Your task to perform on an android device: Show me productivity apps on the Play Store Image 0: 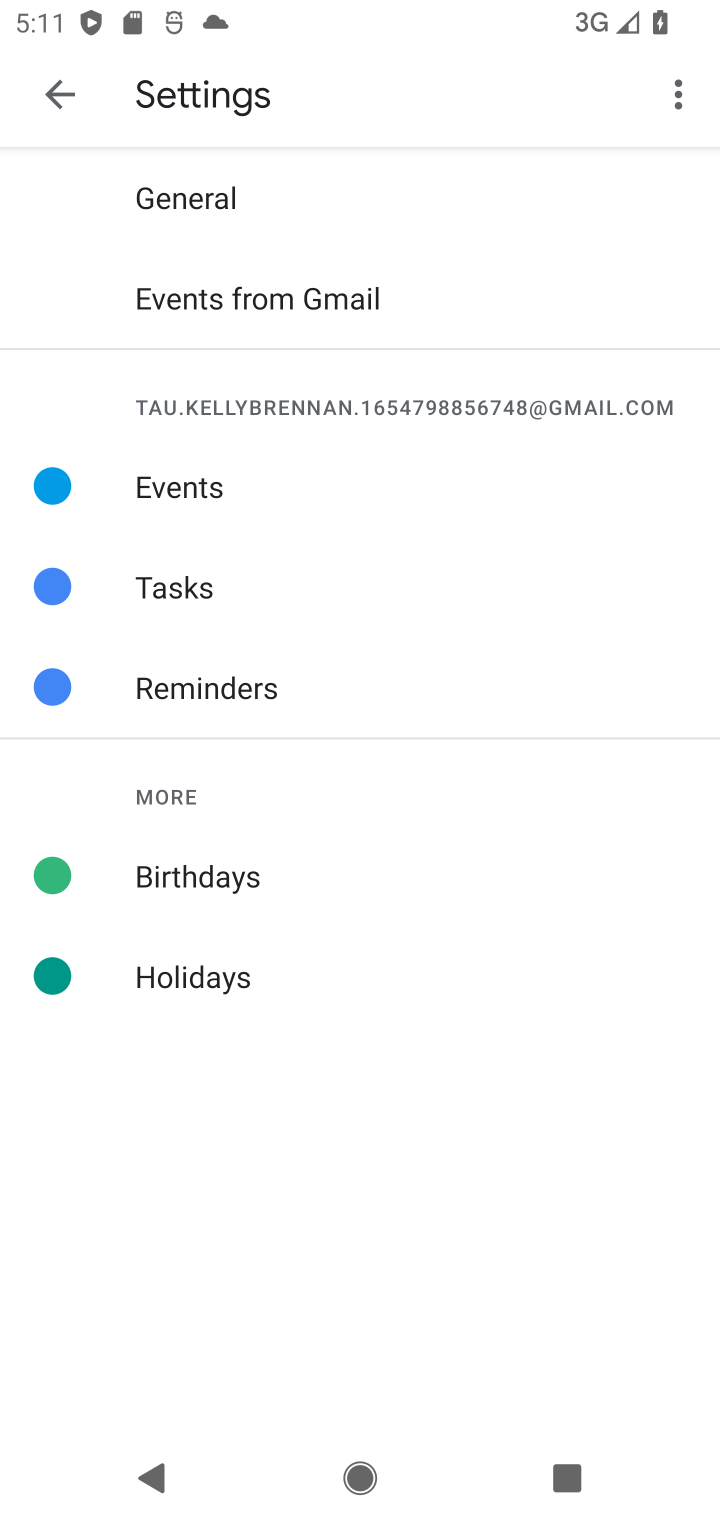
Step 0: press home button
Your task to perform on an android device: Show me productivity apps on the Play Store Image 1: 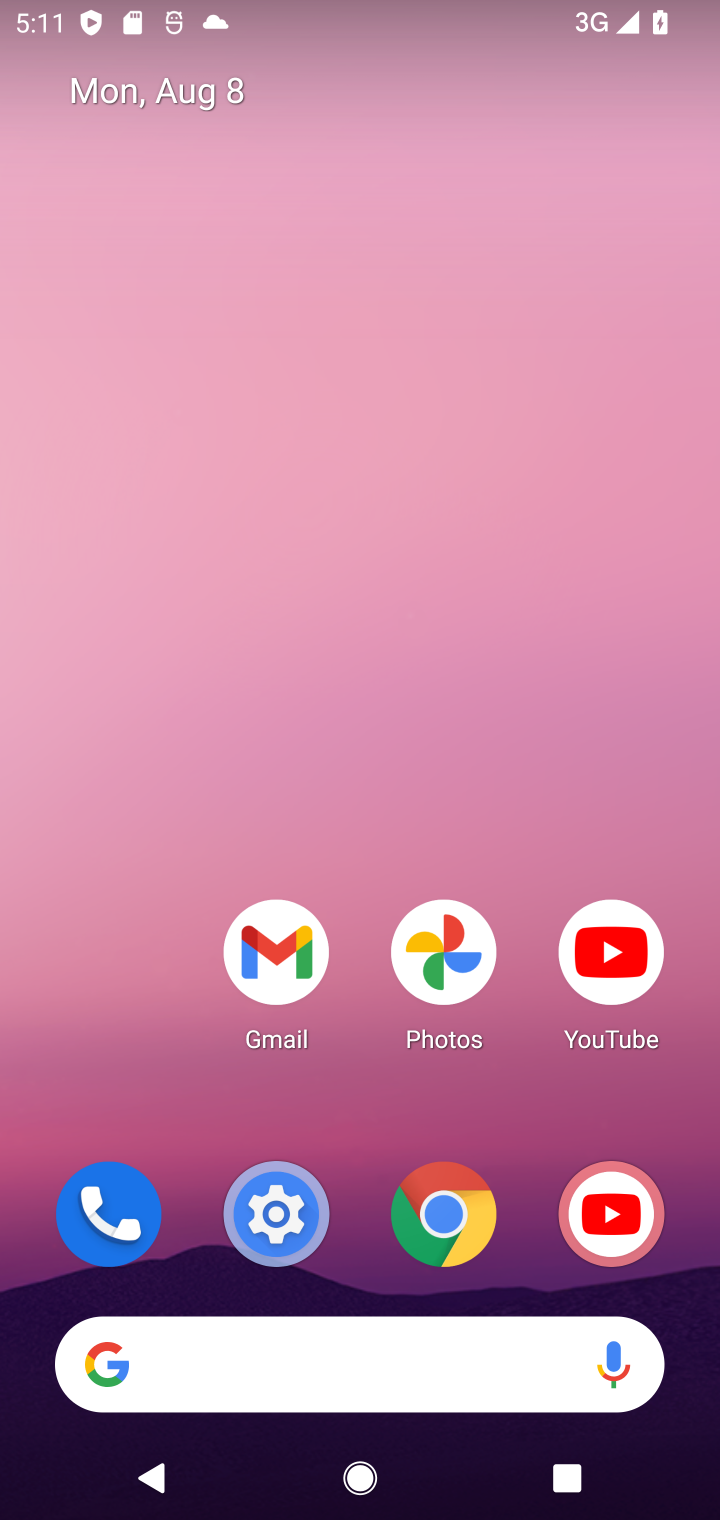
Step 1: drag from (355, 1152) to (372, 502)
Your task to perform on an android device: Show me productivity apps on the Play Store Image 2: 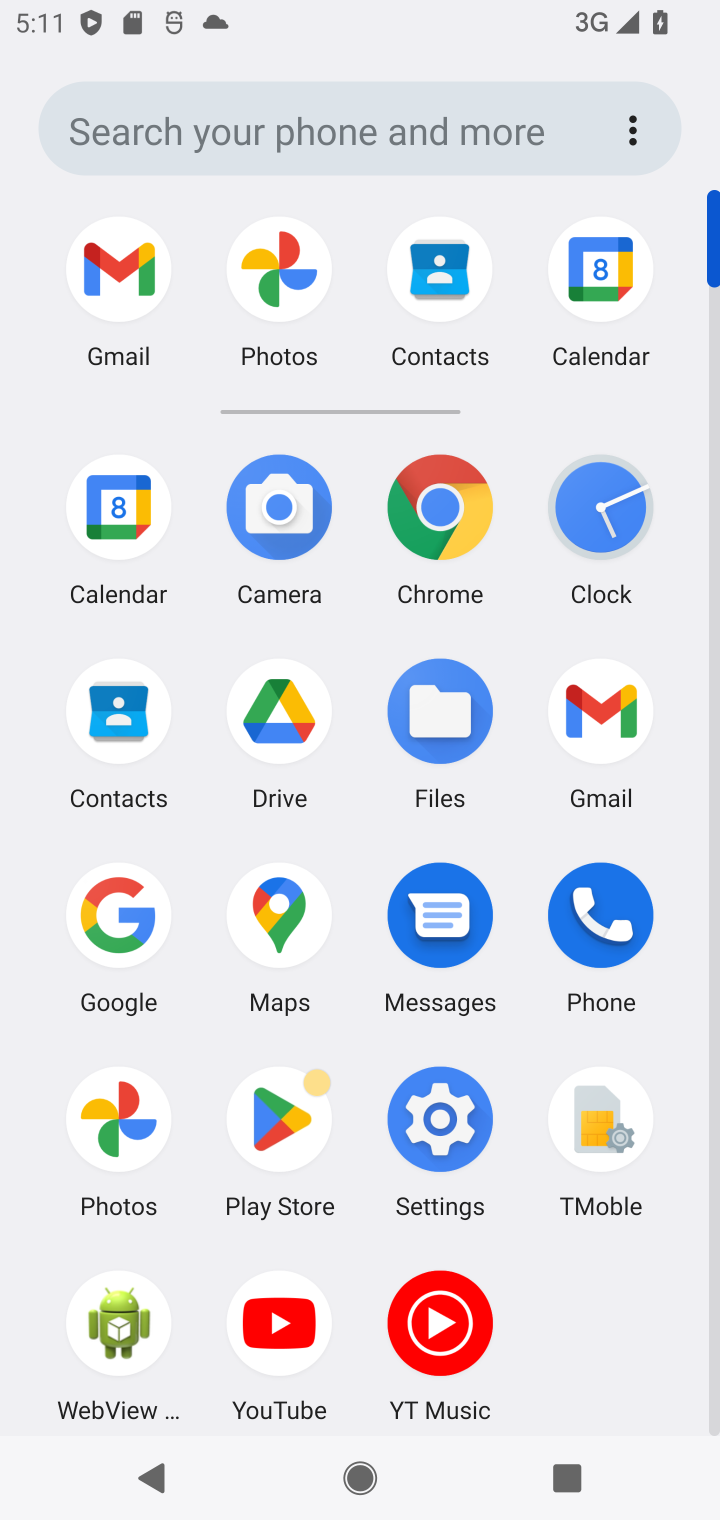
Step 2: click (280, 1119)
Your task to perform on an android device: Show me productivity apps on the Play Store Image 3: 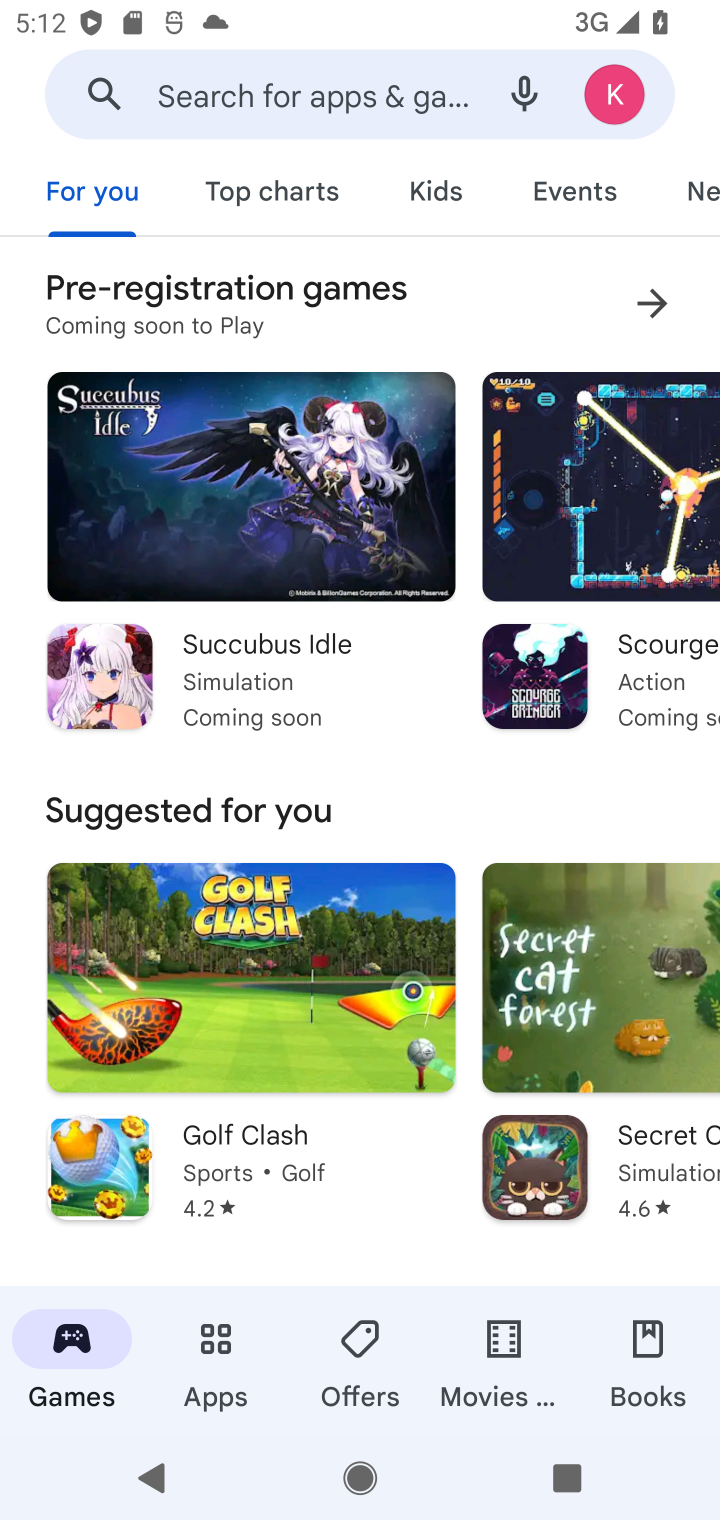
Step 3: click (207, 1340)
Your task to perform on an android device: Show me productivity apps on the Play Store Image 4: 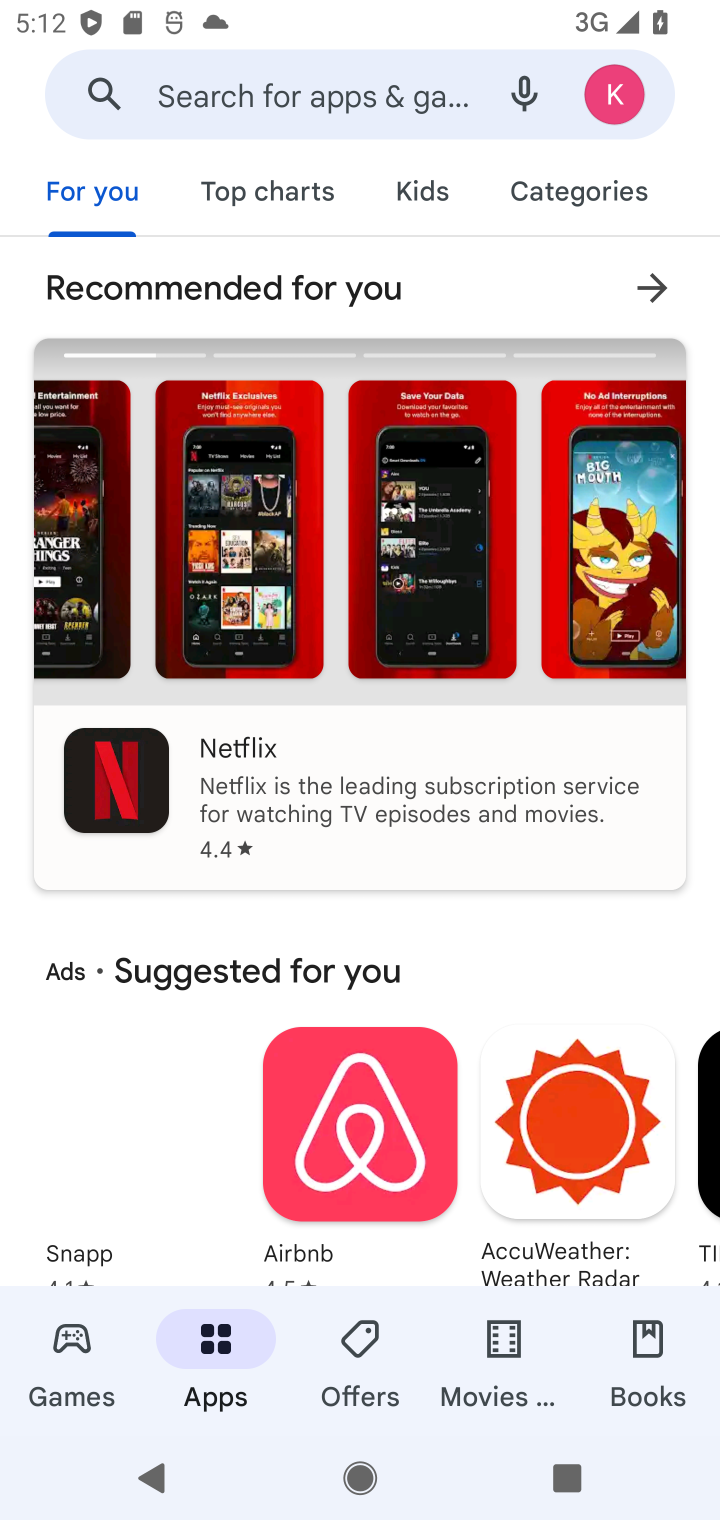
Step 4: click (576, 195)
Your task to perform on an android device: Show me productivity apps on the Play Store Image 5: 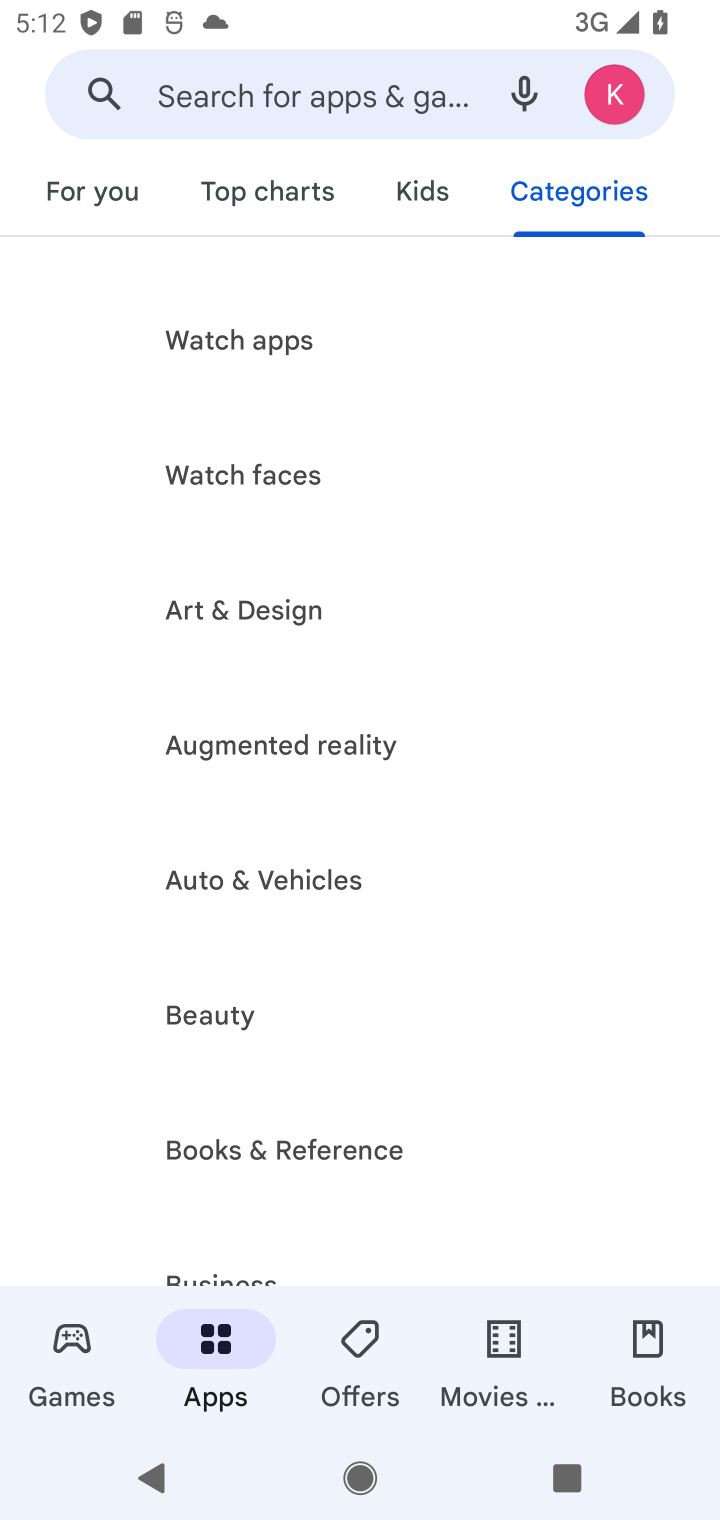
Step 5: drag from (281, 1205) to (281, 584)
Your task to perform on an android device: Show me productivity apps on the Play Store Image 6: 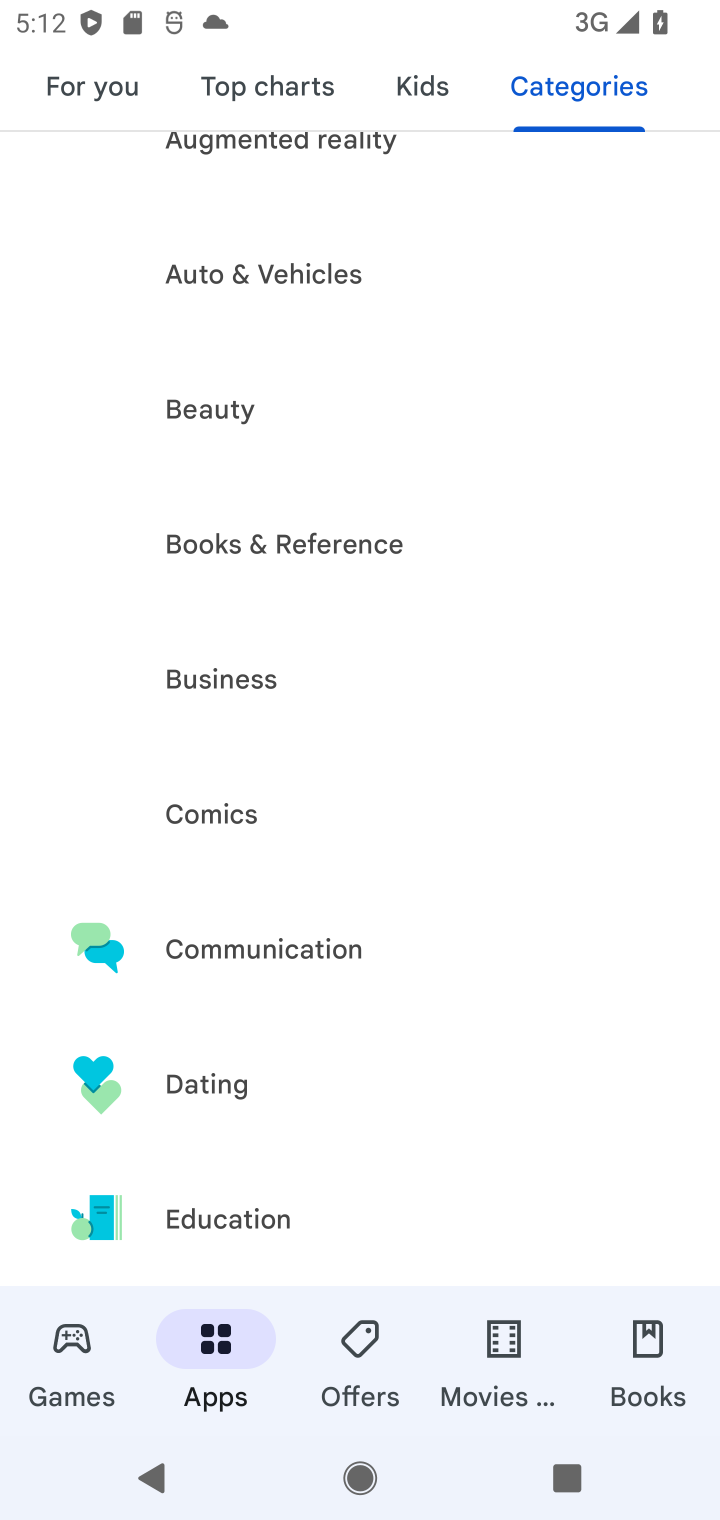
Step 6: drag from (259, 1242) to (273, 659)
Your task to perform on an android device: Show me productivity apps on the Play Store Image 7: 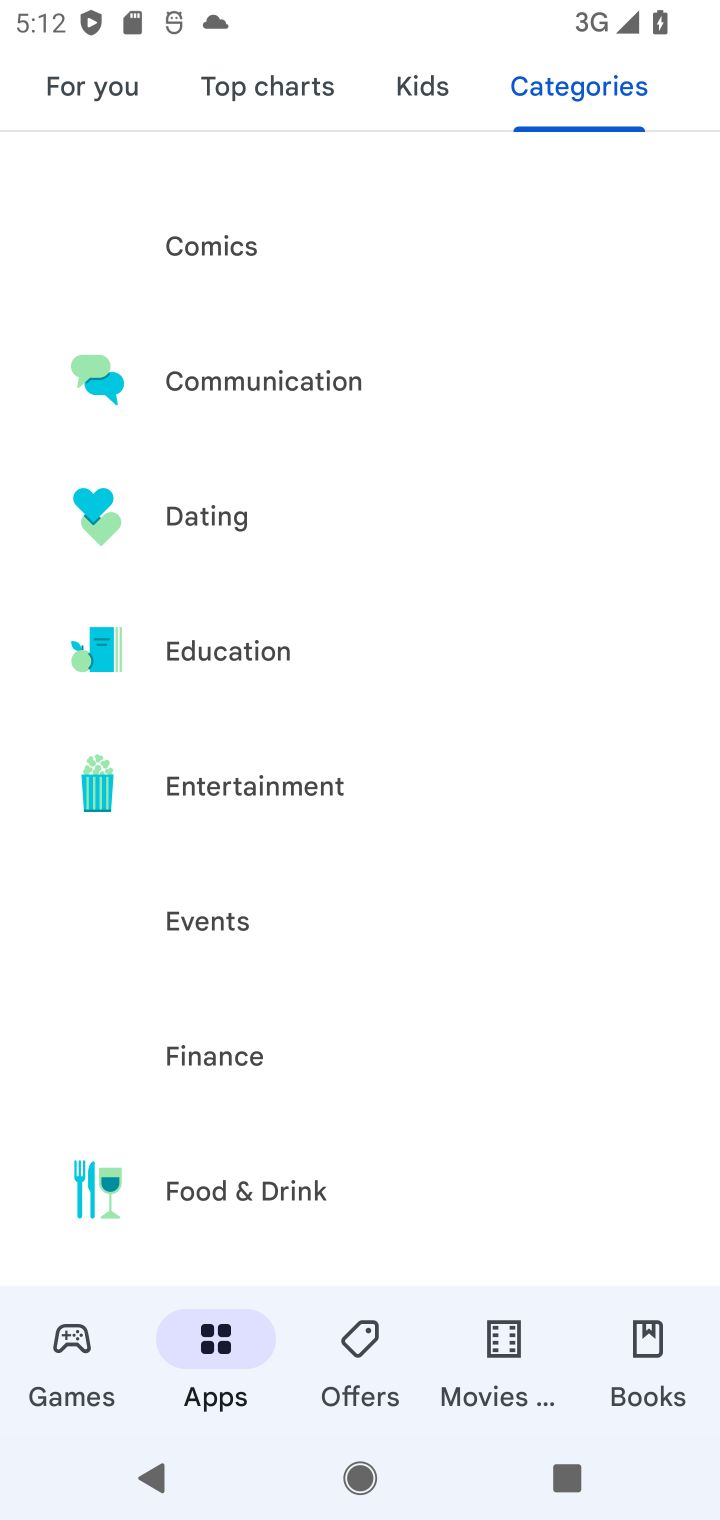
Step 7: drag from (304, 1219) to (311, 524)
Your task to perform on an android device: Show me productivity apps on the Play Store Image 8: 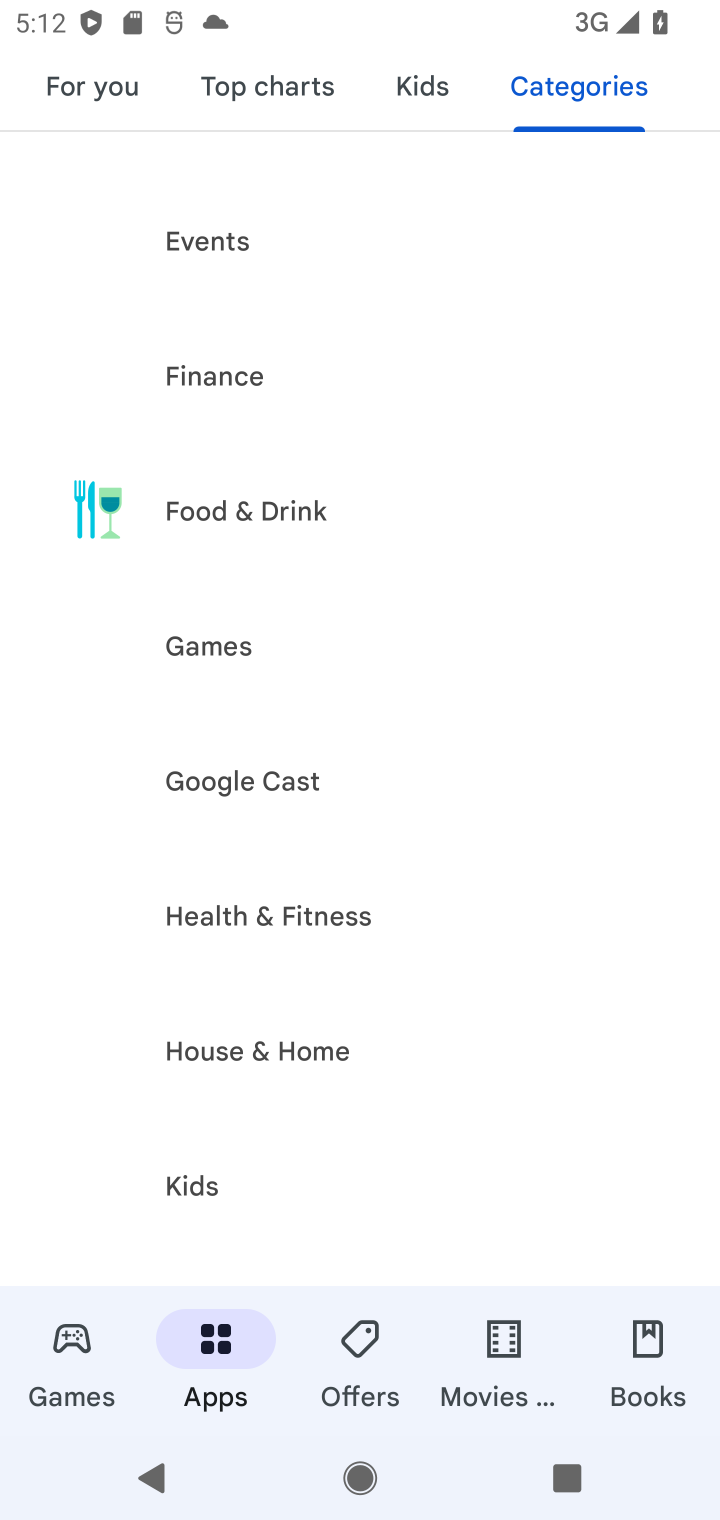
Step 8: drag from (316, 1185) to (312, 404)
Your task to perform on an android device: Show me productivity apps on the Play Store Image 9: 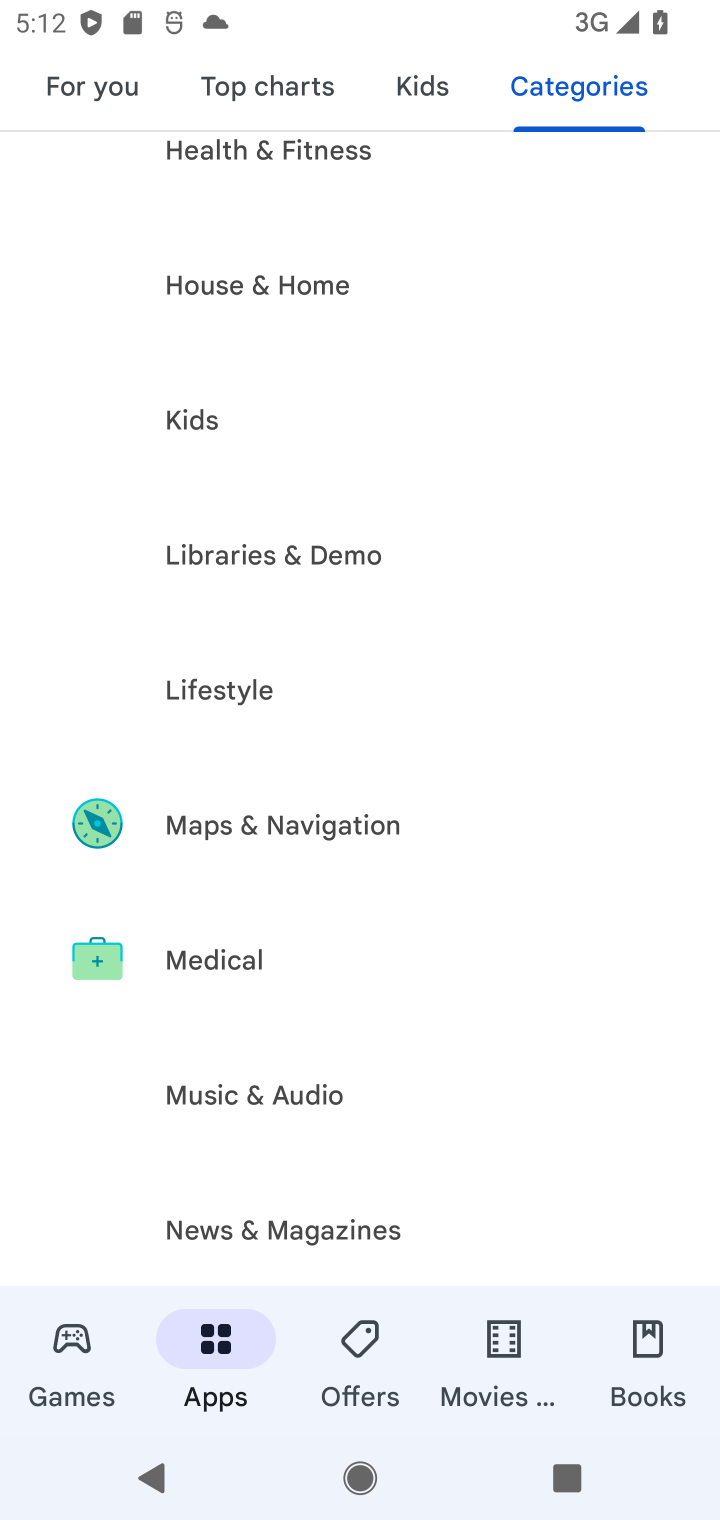
Step 9: drag from (355, 1151) to (355, 605)
Your task to perform on an android device: Show me productivity apps on the Play Store Image 10: 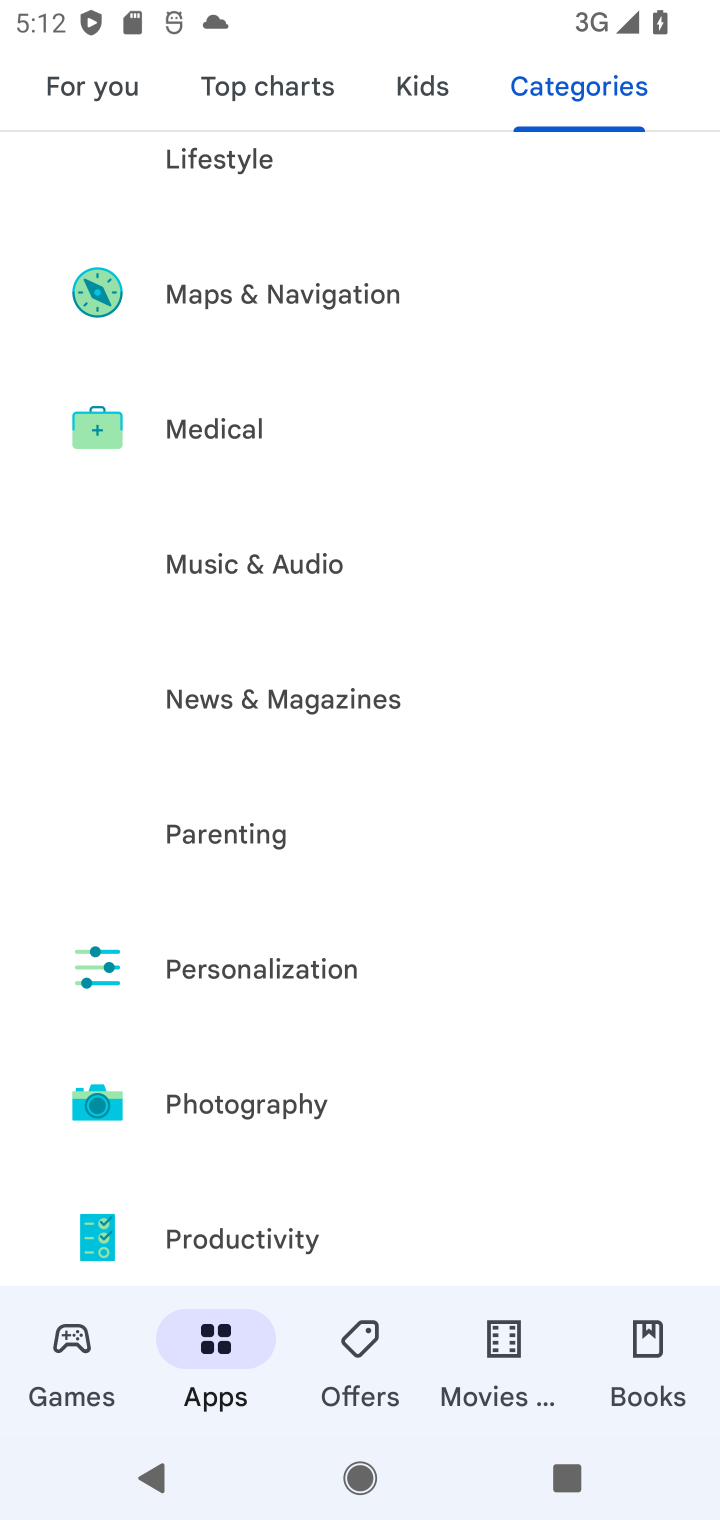
Step 10: click (229, 1235)
Your task to perform on an android device: Show me productivity apps on the Play Store Image 11: 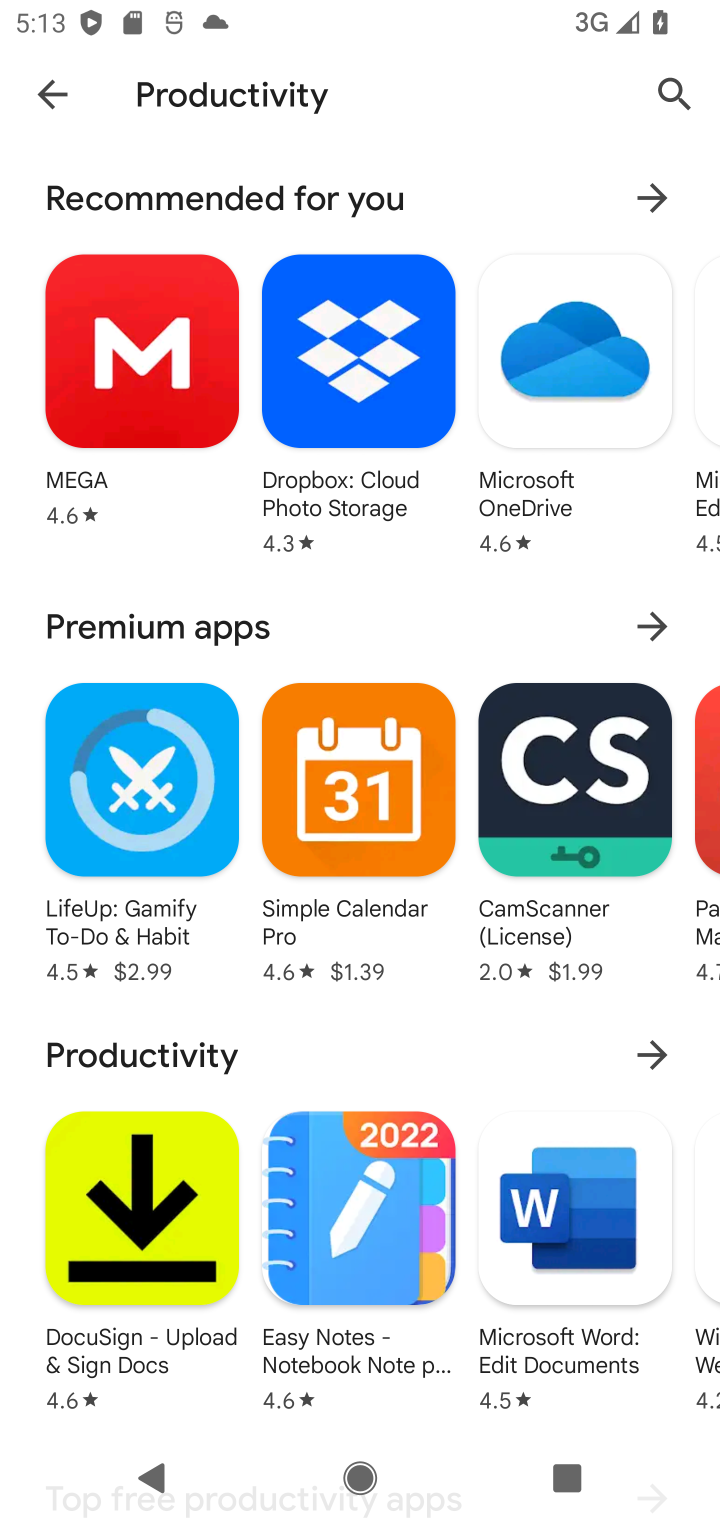
Step 11: task complete